Your task to perform on an android device: Open wifi settings Image 0: 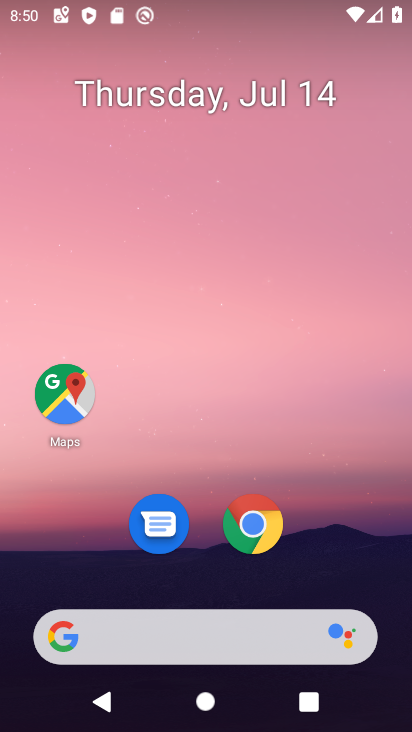
Step 0: drag from (307, 522) to (324, 23)
Your task to perform on an android device: Open wifi settings Image 1: 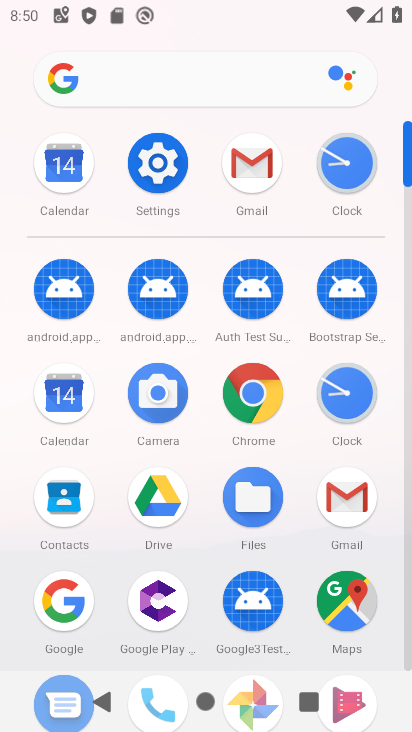
Step 1: click (162, 155)
Your task to perform on an android device: Open wifi settings Image 2: 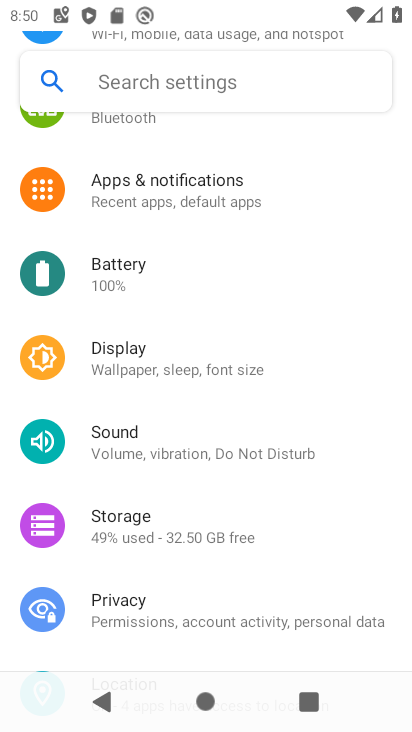
Step 2: drag from (267, 379) to (236, 471)
Your task to perform on an android device: Open wifi settings Image 3: 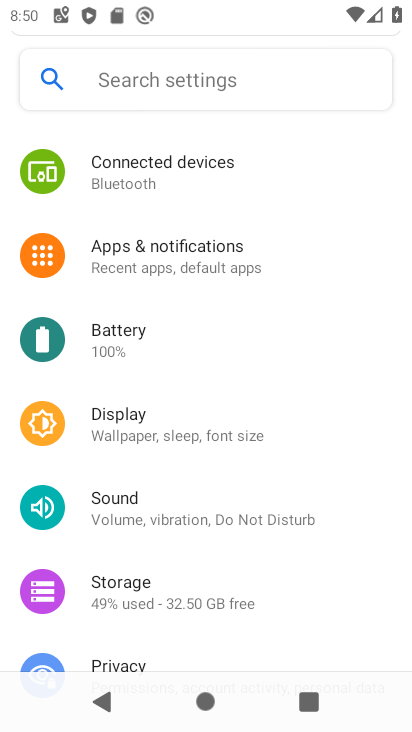
Step 3: drag from (235, 215) to (226, 514)
Your task to perform on an android device: Open wifi settings Image 4: 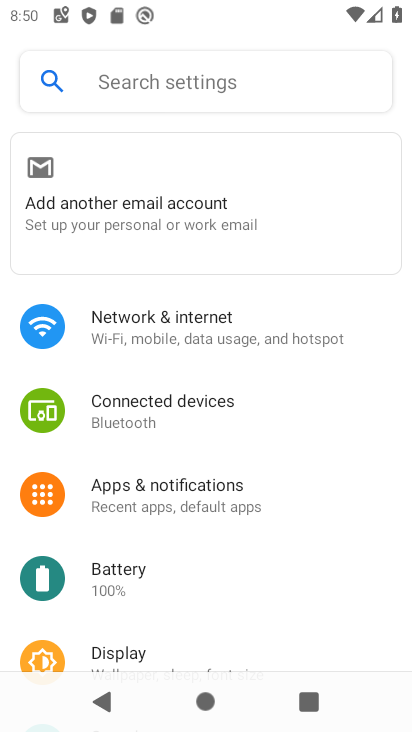
Step 4: click (248, 331)
Your task to perform on an android device: Open wifi settings Image 5: 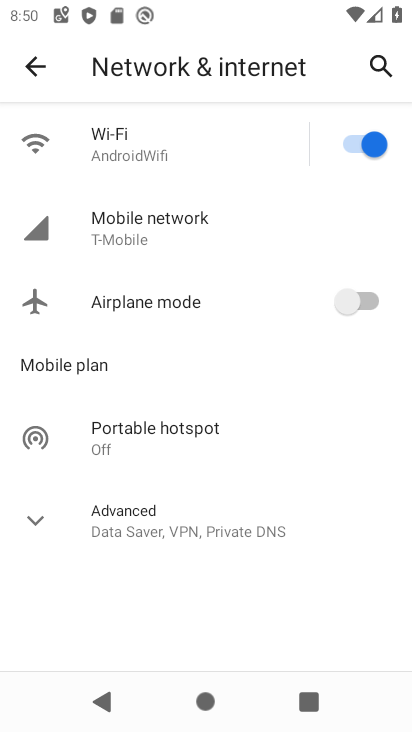
Step 5: click (134, 147)
Your task to perform on an android device: Open wifi settings Image 6: 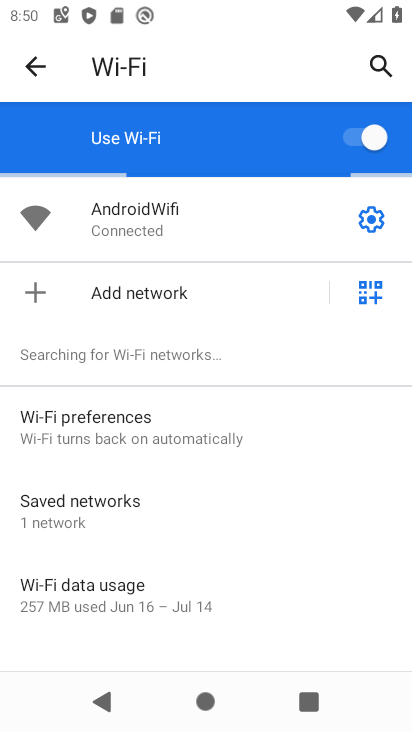
Step 6: task complete